Your task to perform on an android device: turn smart compose on in the gmail app Image 0: 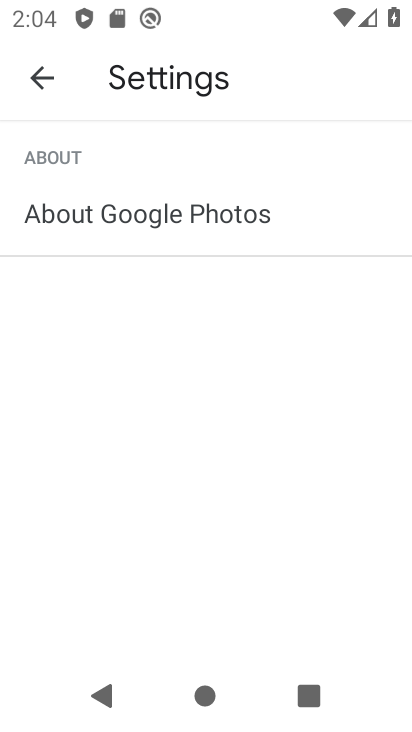
Step 0: press home button
Your task to perform on an android device: turn smart compose on in the gmail app Image 1: 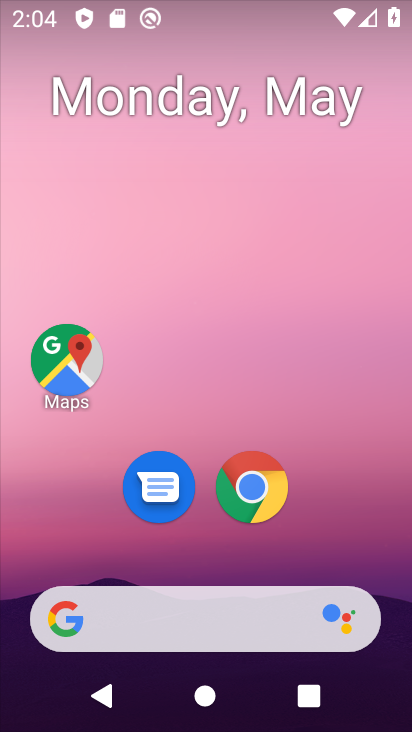
Step 1: drag from (361, 561) to (373, 64)
Your task to perform on an android device: turn smart compose on in the gmail app Image 2: 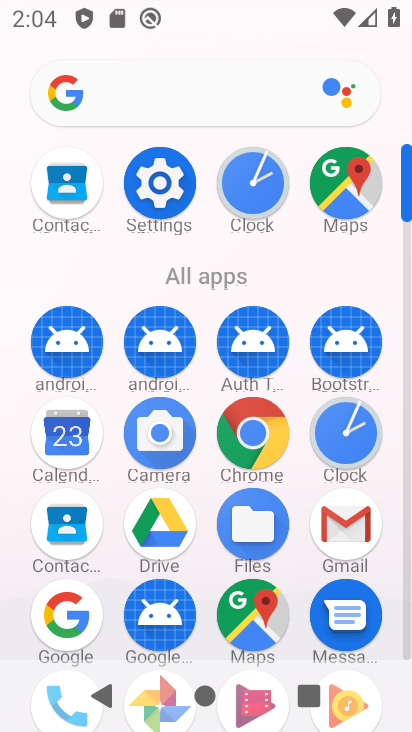
Step 2: click (354, 521)
Your task to perform on an android device: turn smart compose on in the gmail app Image 3: 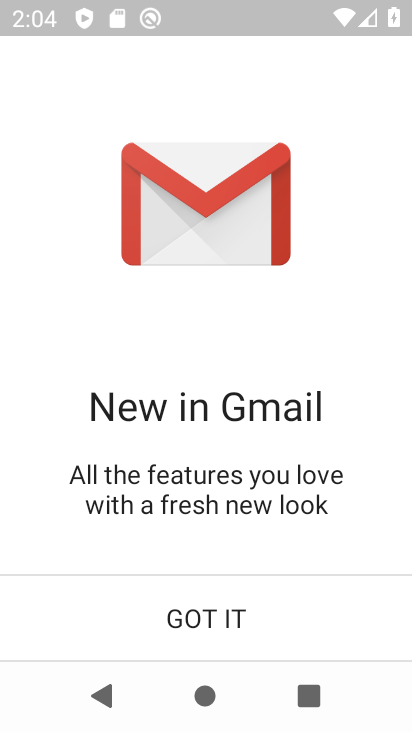
Step 3: click (225, 608)
Your task to perform on an android device: turn smart compose on in the gmail app Image 4: 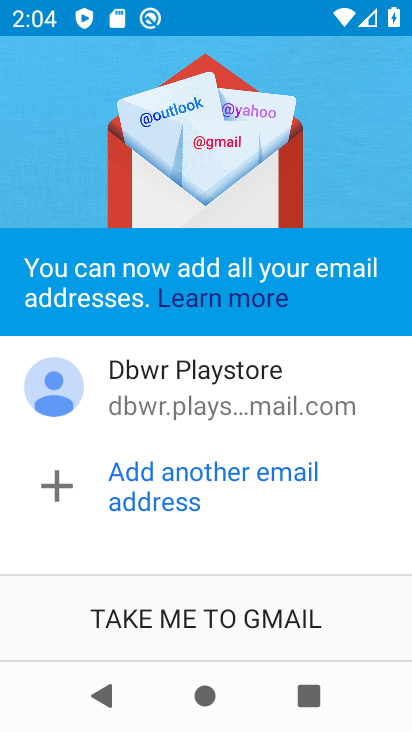
Step 4: click (225, 608)
Your task to perform on an android device: turn smart compose on in the gmail app Image 5: 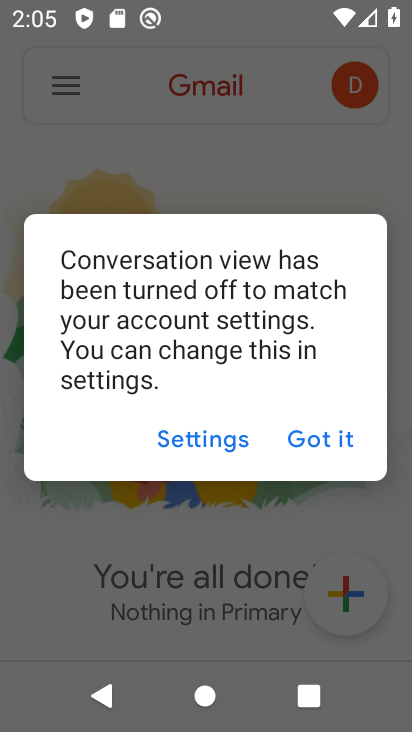
Step 5: click (333, 436)
Your task to perform on an android device: turn smart compose on in the gmail app Image 6: 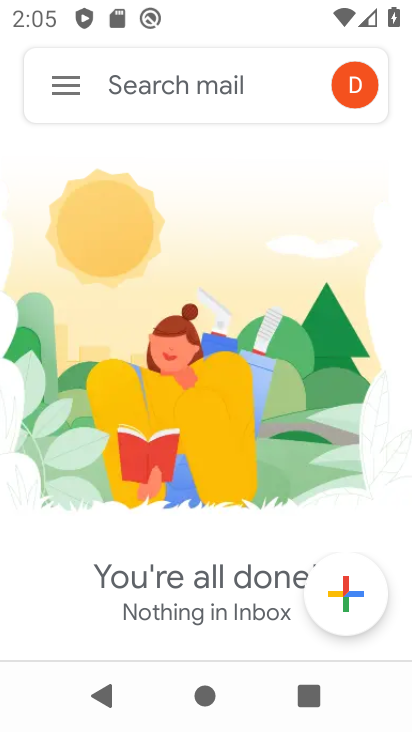
Step 6: click (69, 82)
Your task to perform on an android device: turn smart compose on in the gmail app Image 7: 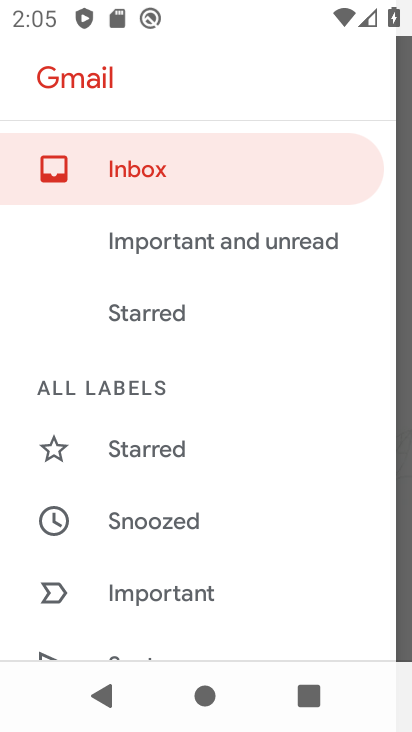
Step 7: drag from (246, 622) to (263, 105)
Your task to perform on an android device: turn smart compose on in the gmail app Image 8: 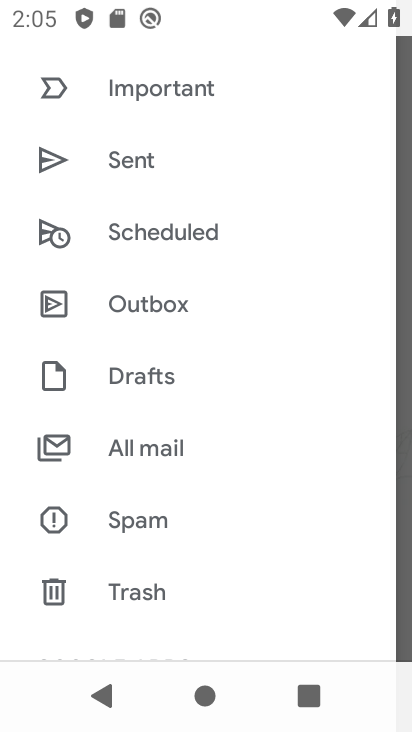
Step 8: drag from (246, 604) to (236, 148)
Your task to perform on an android device: turn smart compose on in the gmail app Image 9: 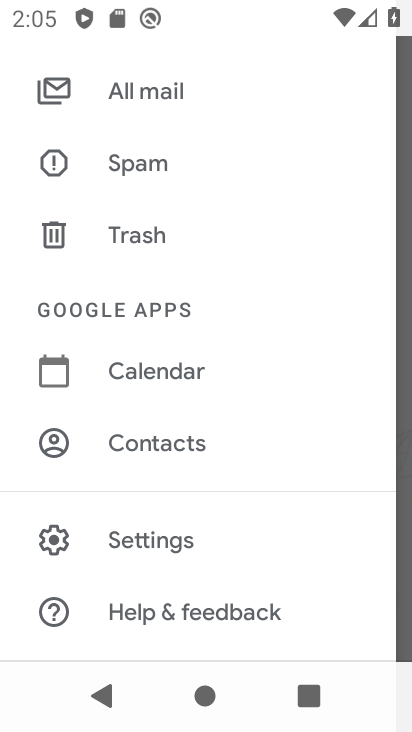
Step 9: click (197, 545)
Your task to perform on an android device: turn smart compose on in the gmail app Image 10: 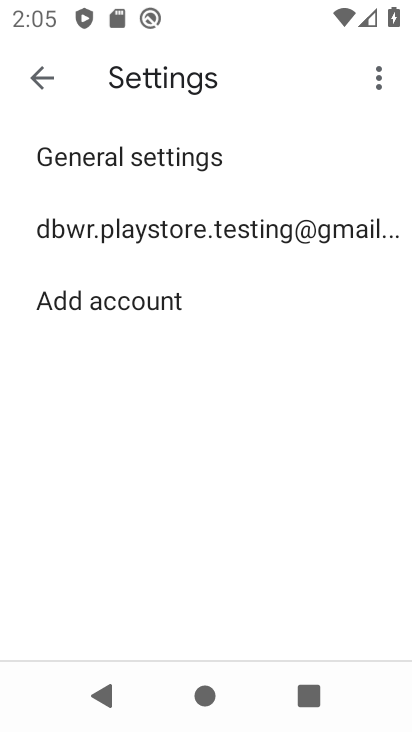
Step 10: click (298, 225)
Your task to perform on an android device: turn smart compose on in the gmail app Image 11: 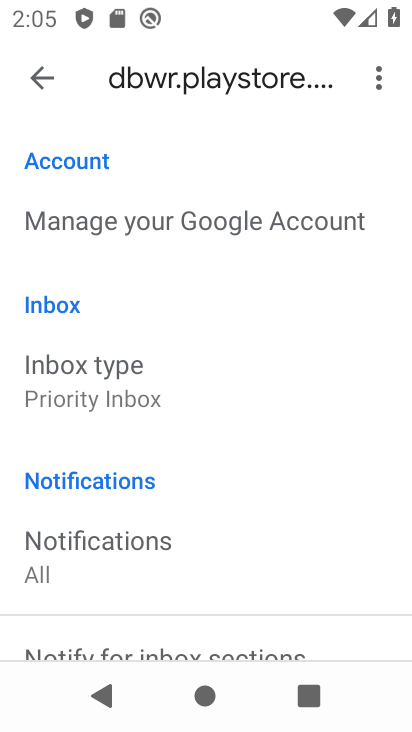
Step 11: task complete